Your task to perform on an android device: toggle show notifications on the lock screen Image 0: 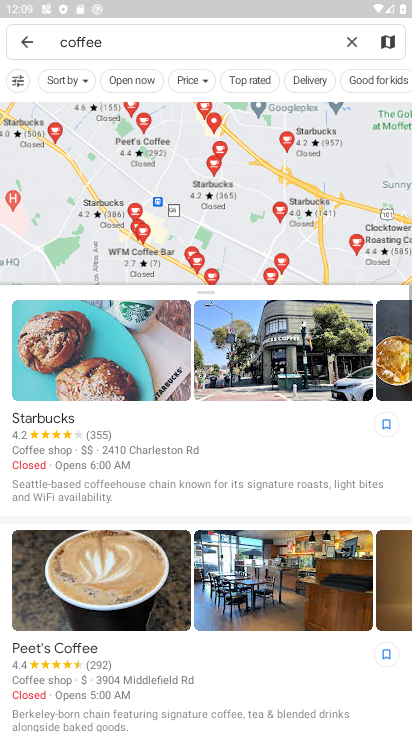
Step 0: press home button
Your task to perform on an android device: toggle show notifications on the lock screen Image 1: 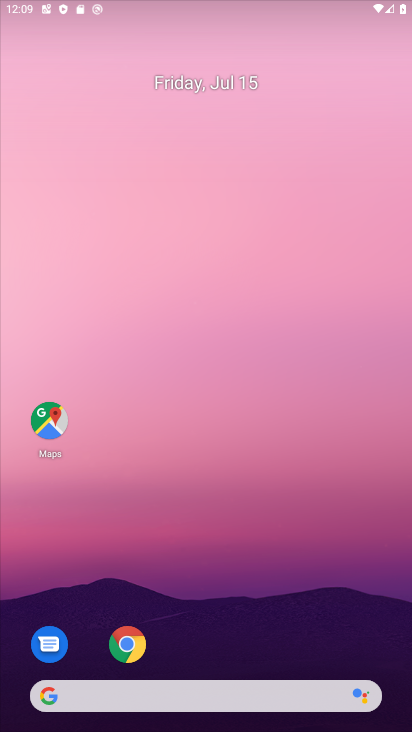
Step 1: drag from (410, 674) to (309, 16)
Your task to perform on an android device: toggle show notifications on the lock screen Image 2: 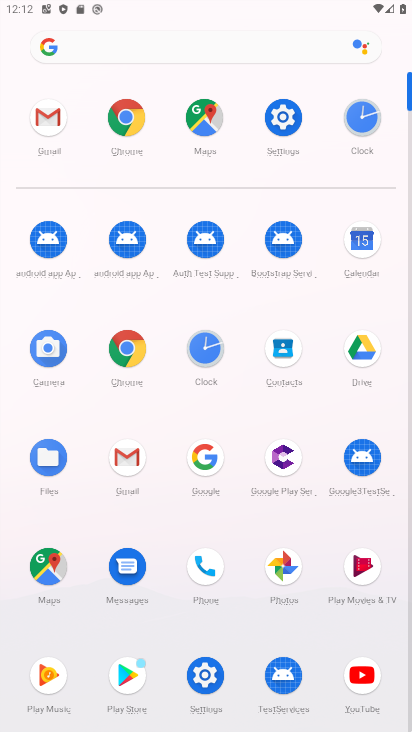
Step 2: click (202, 695)
Your task to perform on an android device: toggle show notifications on the lock screen Image 3: 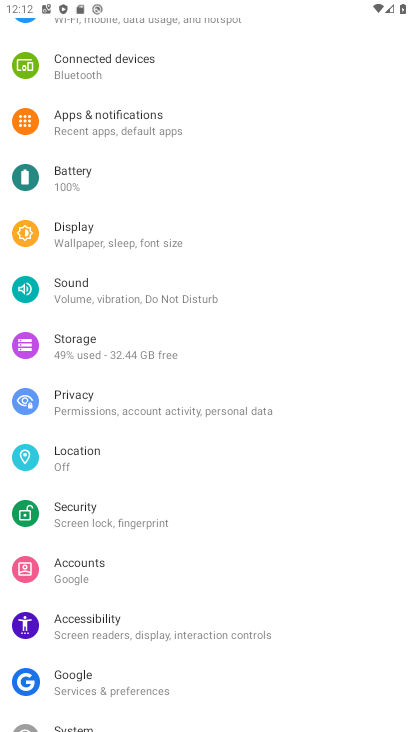
Step 3: click (113, 131)
Your task to perform on an android device: toggle show notifications on the lock screen Image 4: 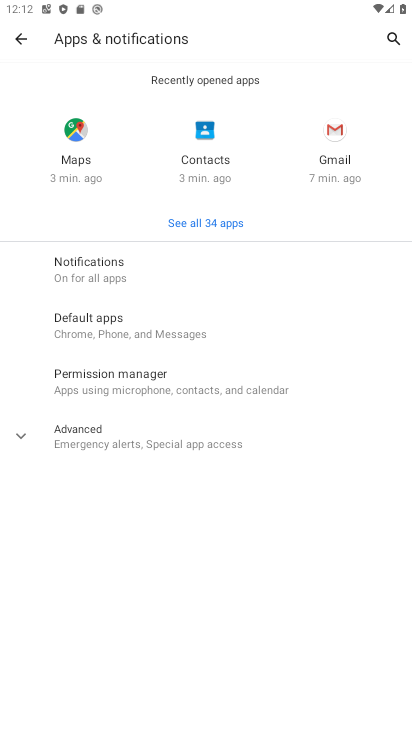
Step 4: click (115, 266)
Your task to perform on an android device: toggle show notifications on the lock screen Image 5: 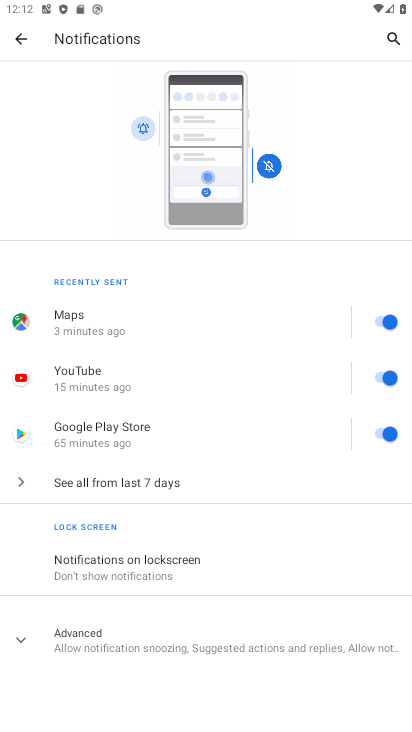
Step 5: click (184, 574)
Your task to perform on an android device: toggle show notifications on the lock screen Image 6: 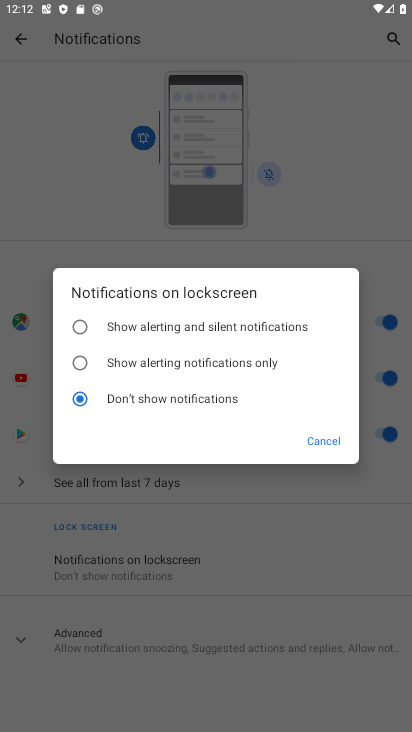
Step 6: click (70, 326)
Your task to perform on an android device: toggle show notifications on the lock screen Image 7: 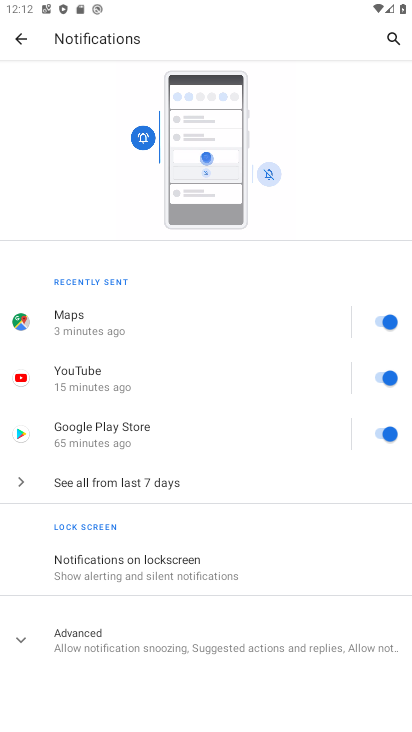
Step 7: task complete